Your task to perform on an android device: toggle location history Image 0: 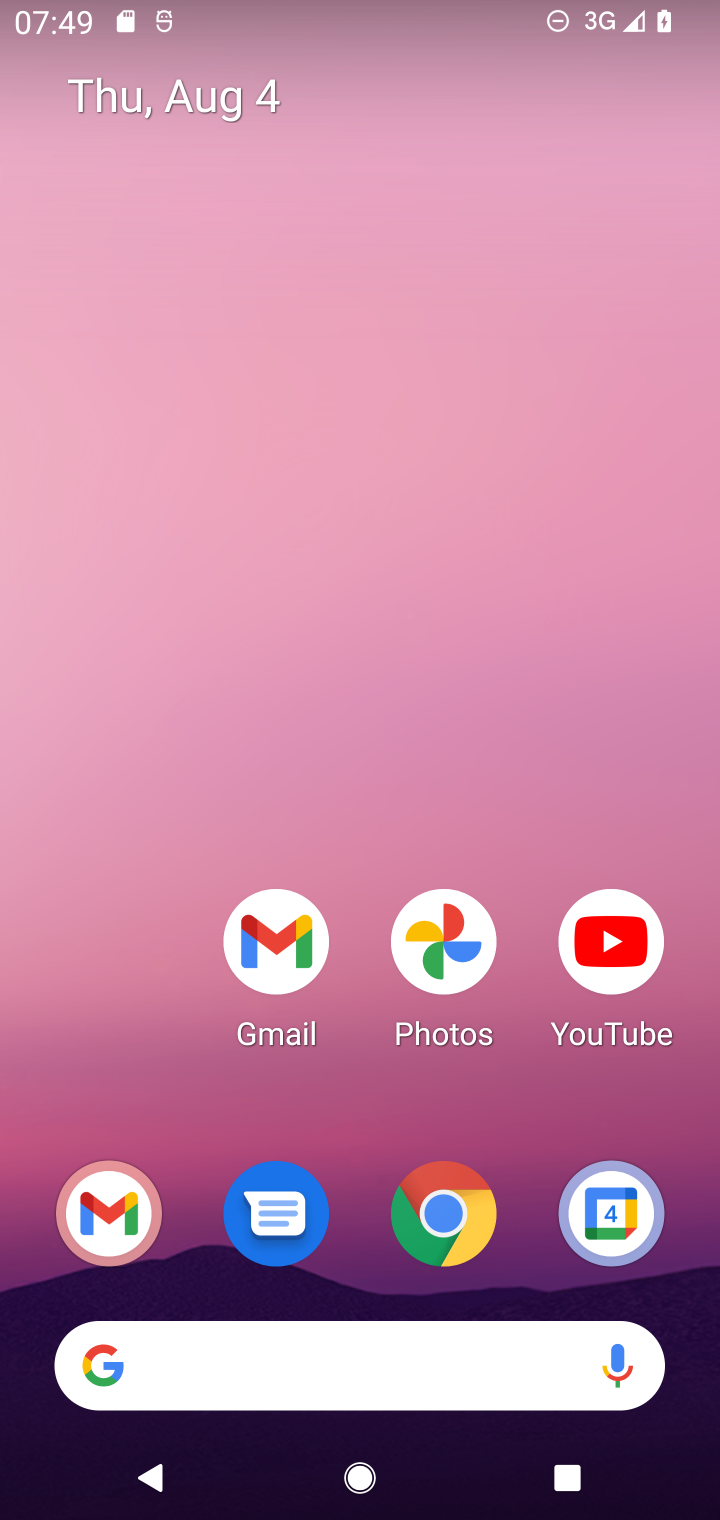
Step 0: press home button
Your task to perform on an android device: toggle location history Image 1: 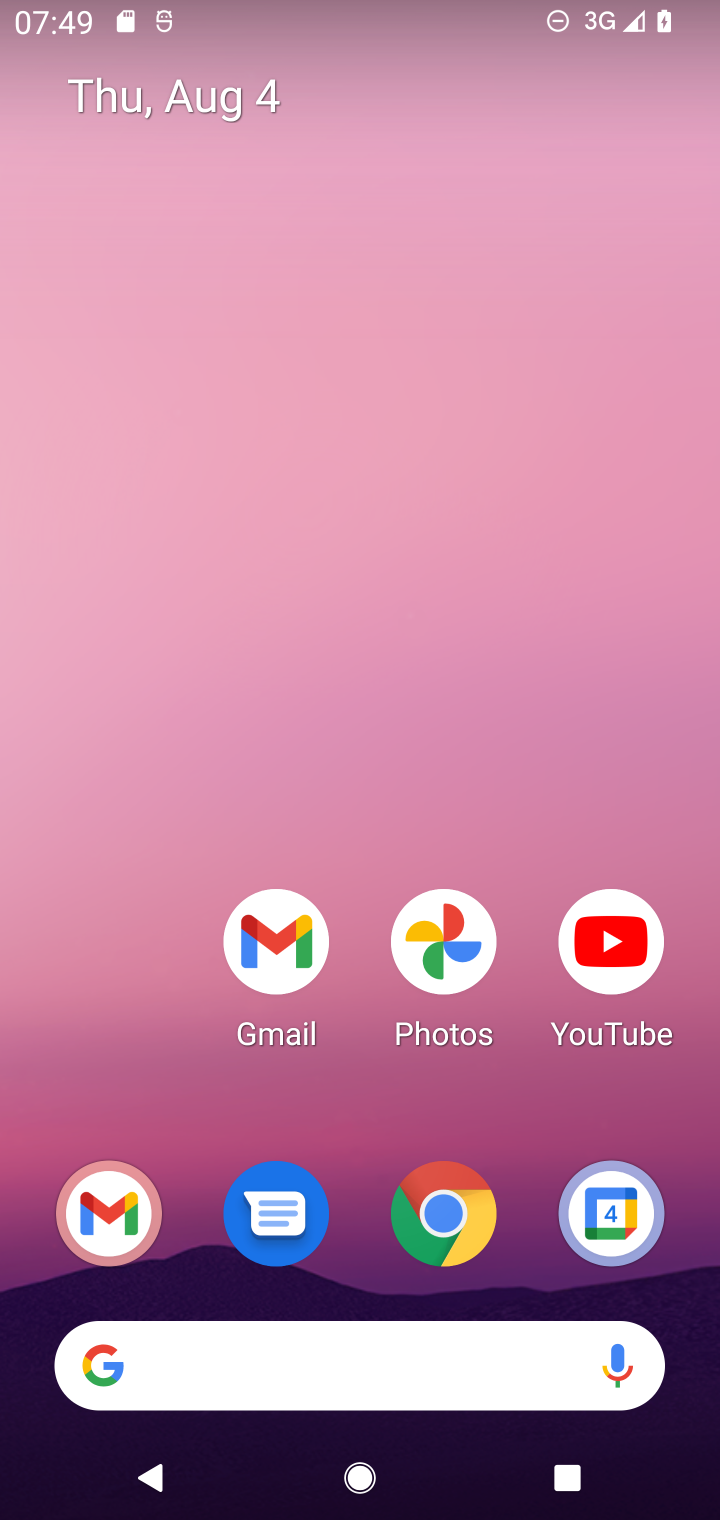
Step 1: drag from (160, 1086) to (128, 515)
Your task to perform on an android device: toggle location history Image 2: 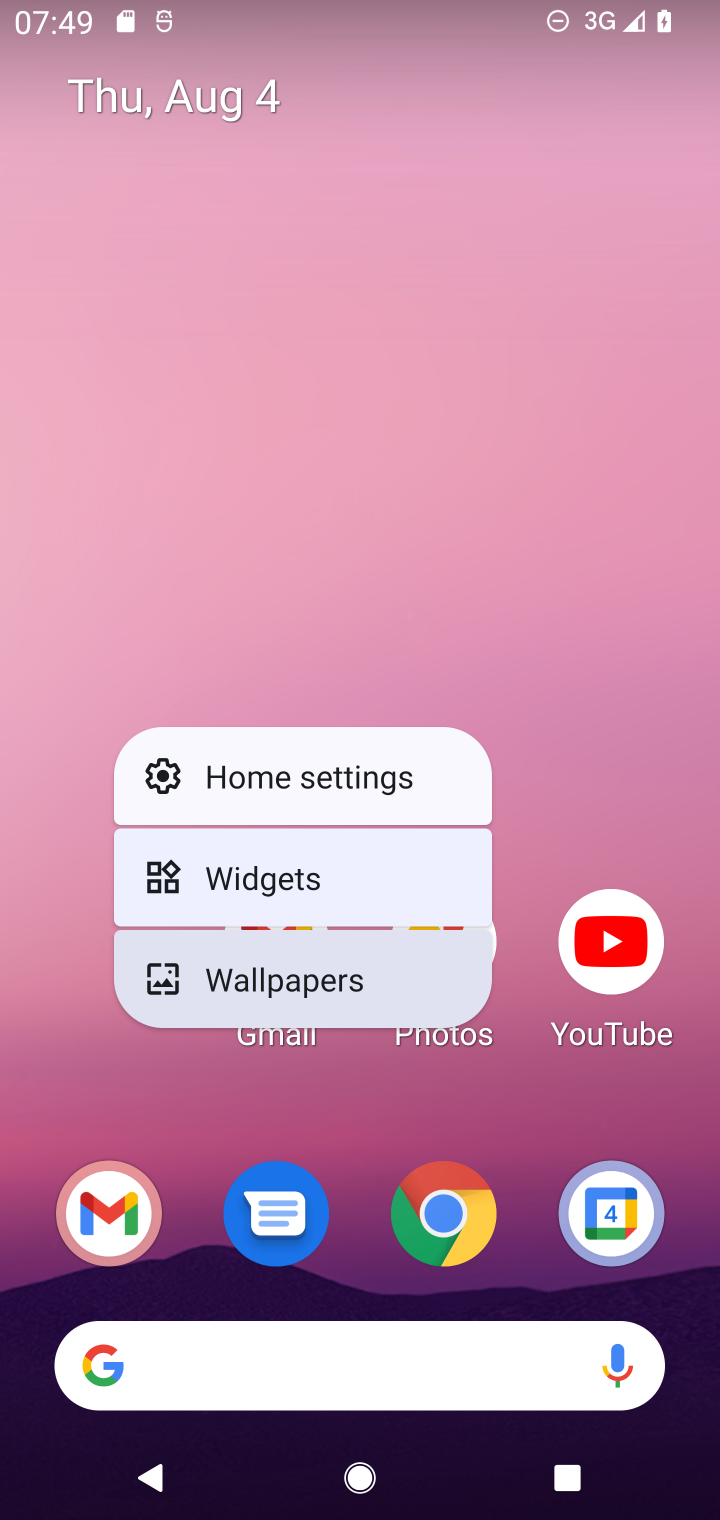
Step 2: click (78, 967)
Your task to perform on an android device: toggle location history Image 3: 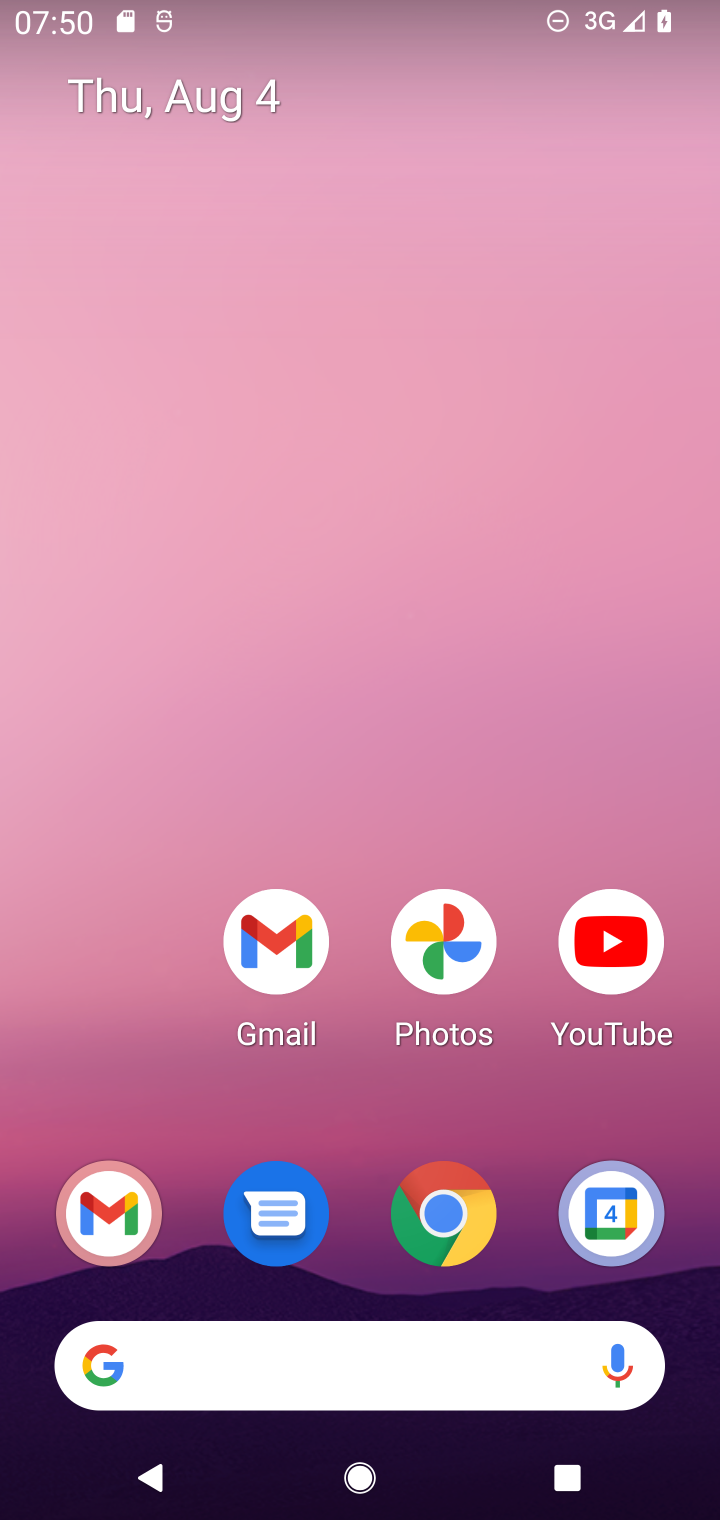
Step 3: drag from (106, 975) to (114, 239)
Your task to perform on an android device: toggle location history Image 4: 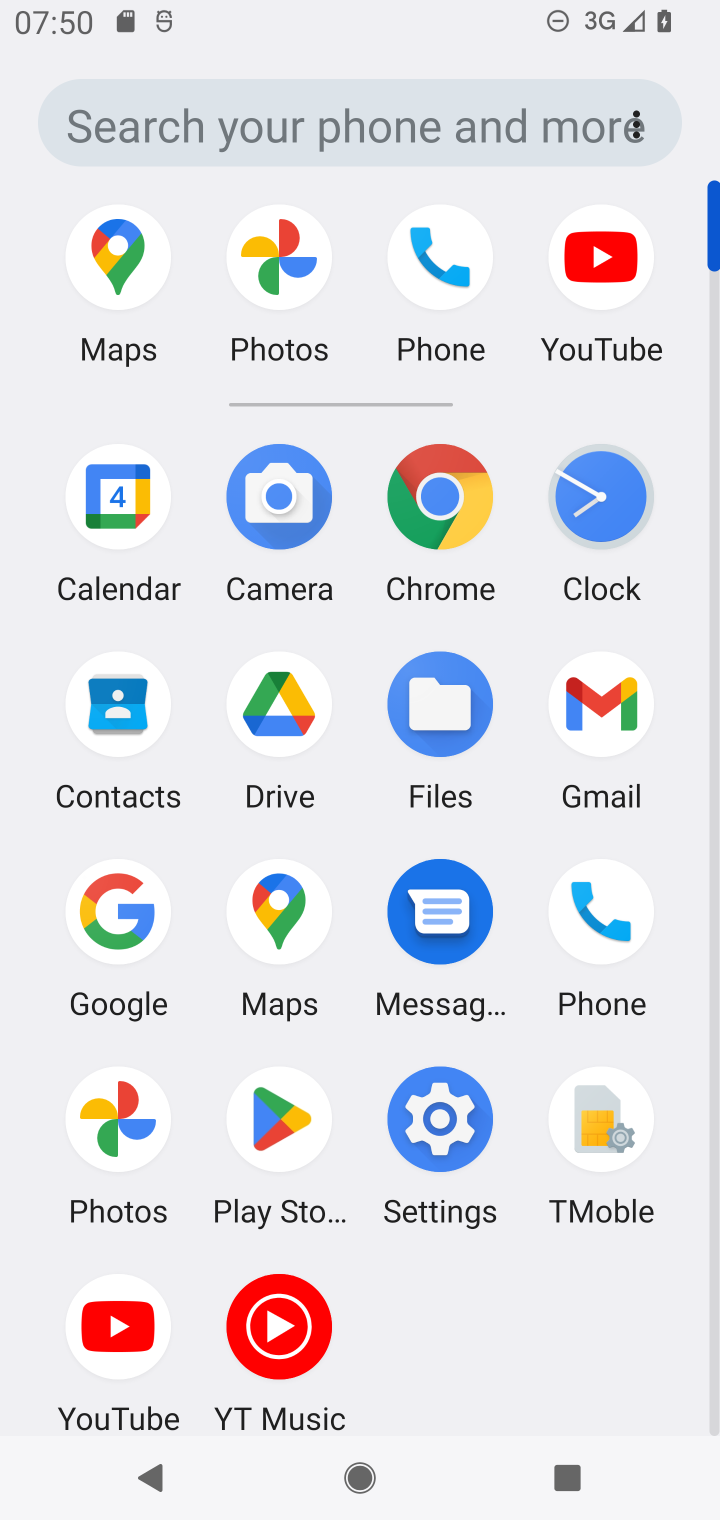
Step 4: click (444, 1120)
Your task to perform on an android device: toggle location history Image 5: 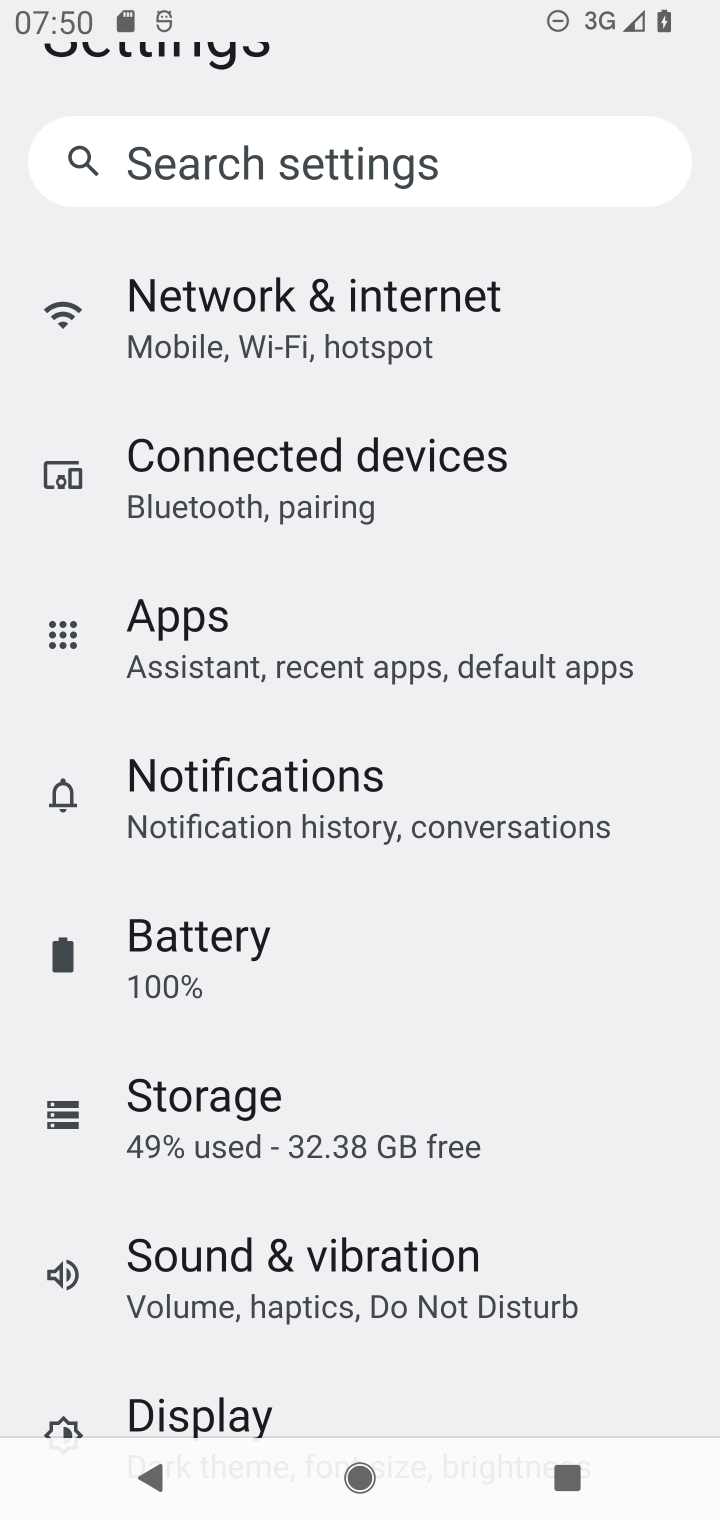
Step 5: drag from (551, 1153) to (585, 954)
Your task to perform on an android device: toggle location history Image 6: 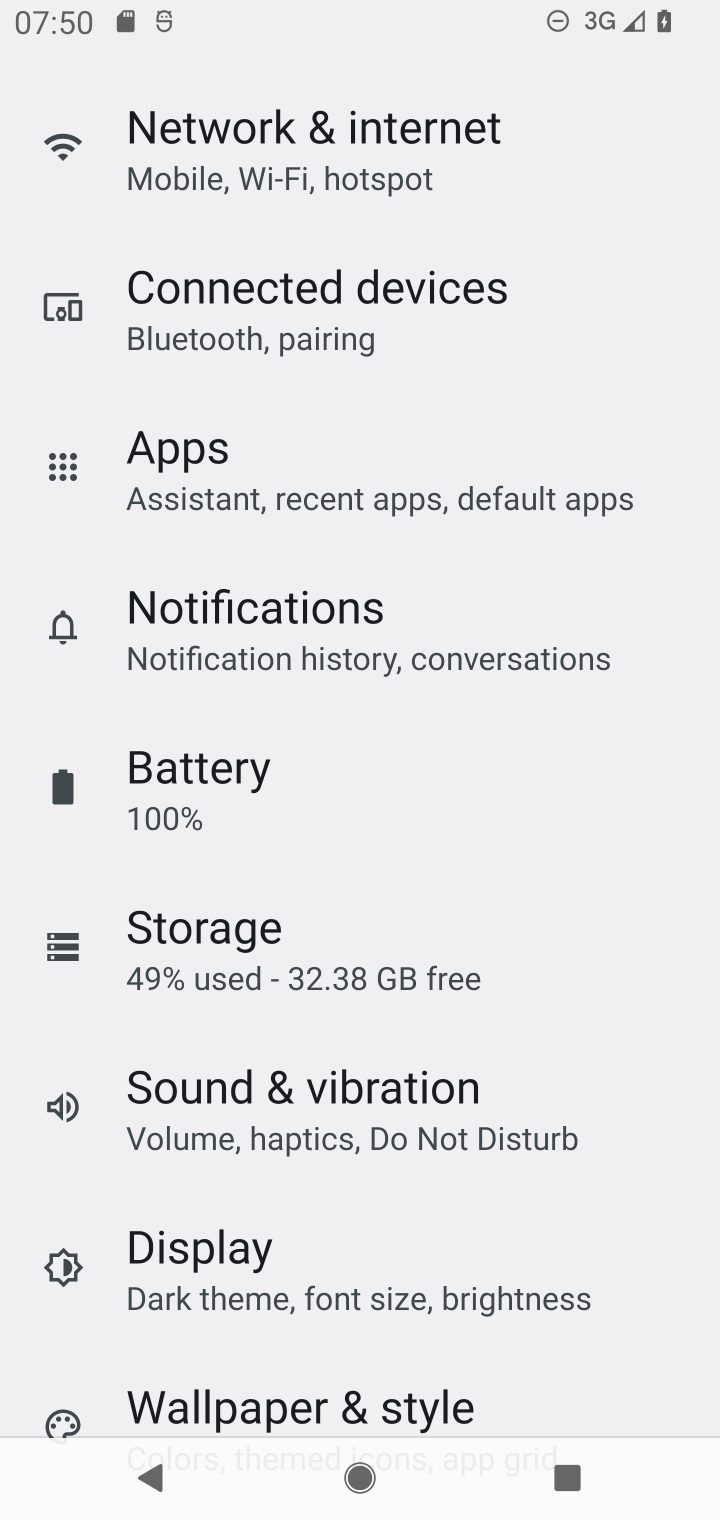
Step 6: drag from (630, 1307) to (645, 1064)
Your task to perform on an android device: toggle location history Image 7: 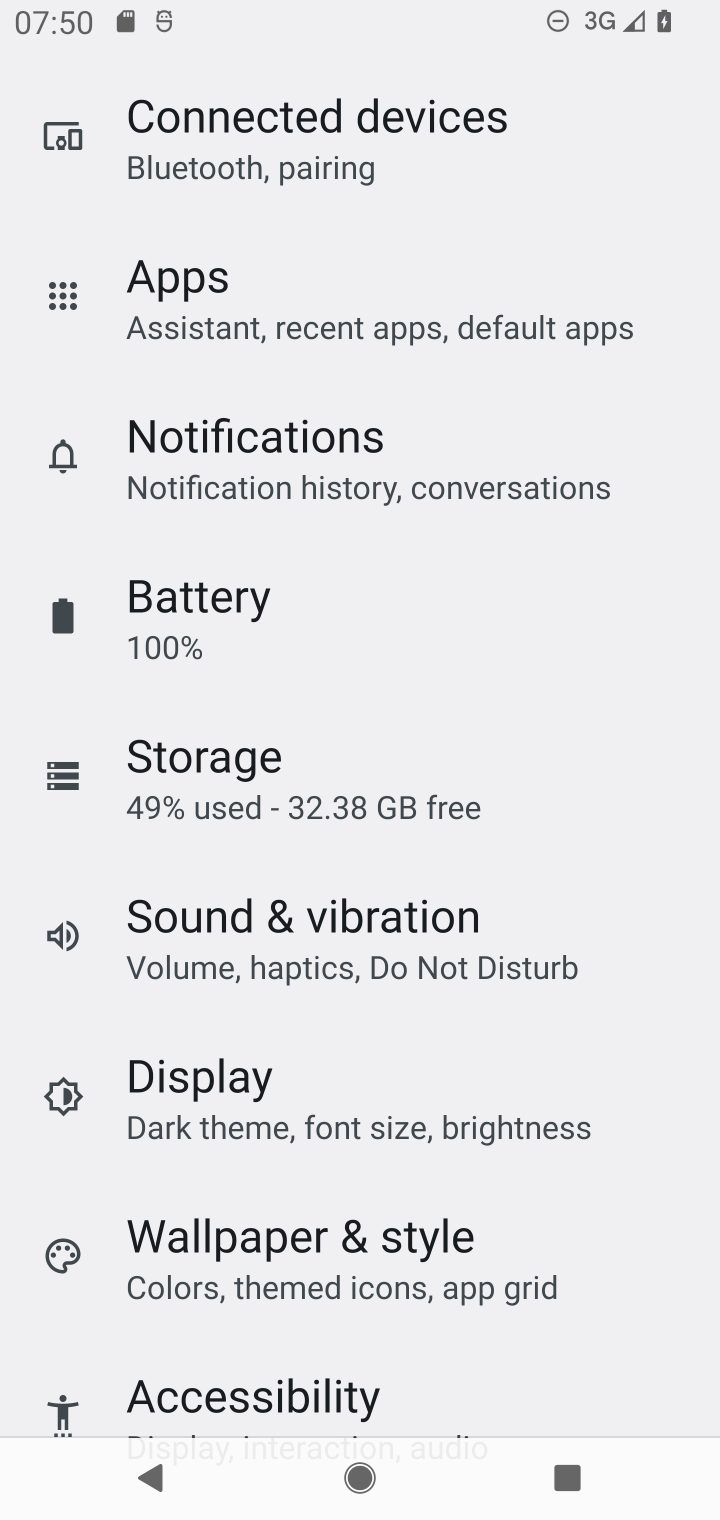
Step 7: drag from (613, 1216) to (644, 1018)
Your task to perform on an android device: toggle location history Image 8: 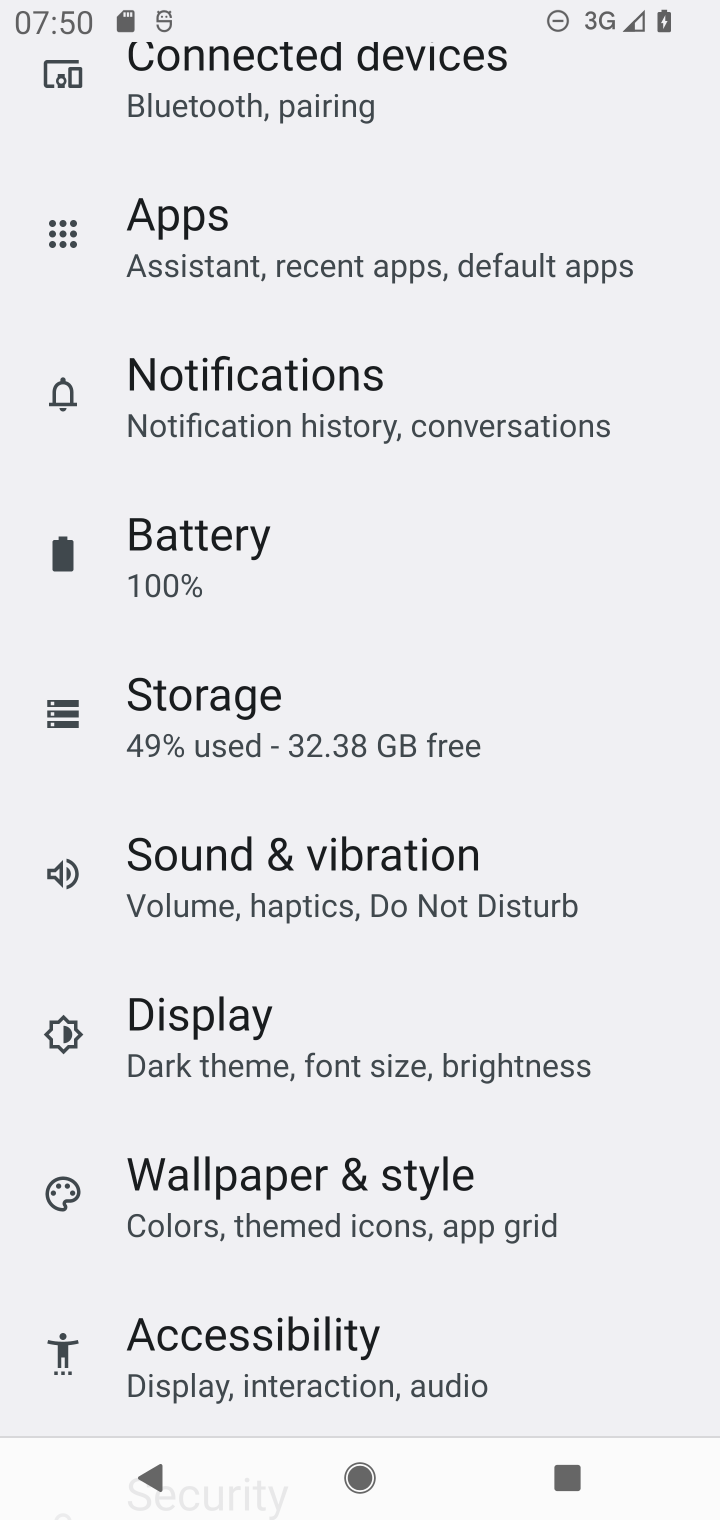
Step 8: drag from (604, 1255) to (616, 965)
Your task to perform on an android device: toggle location history Image 9: 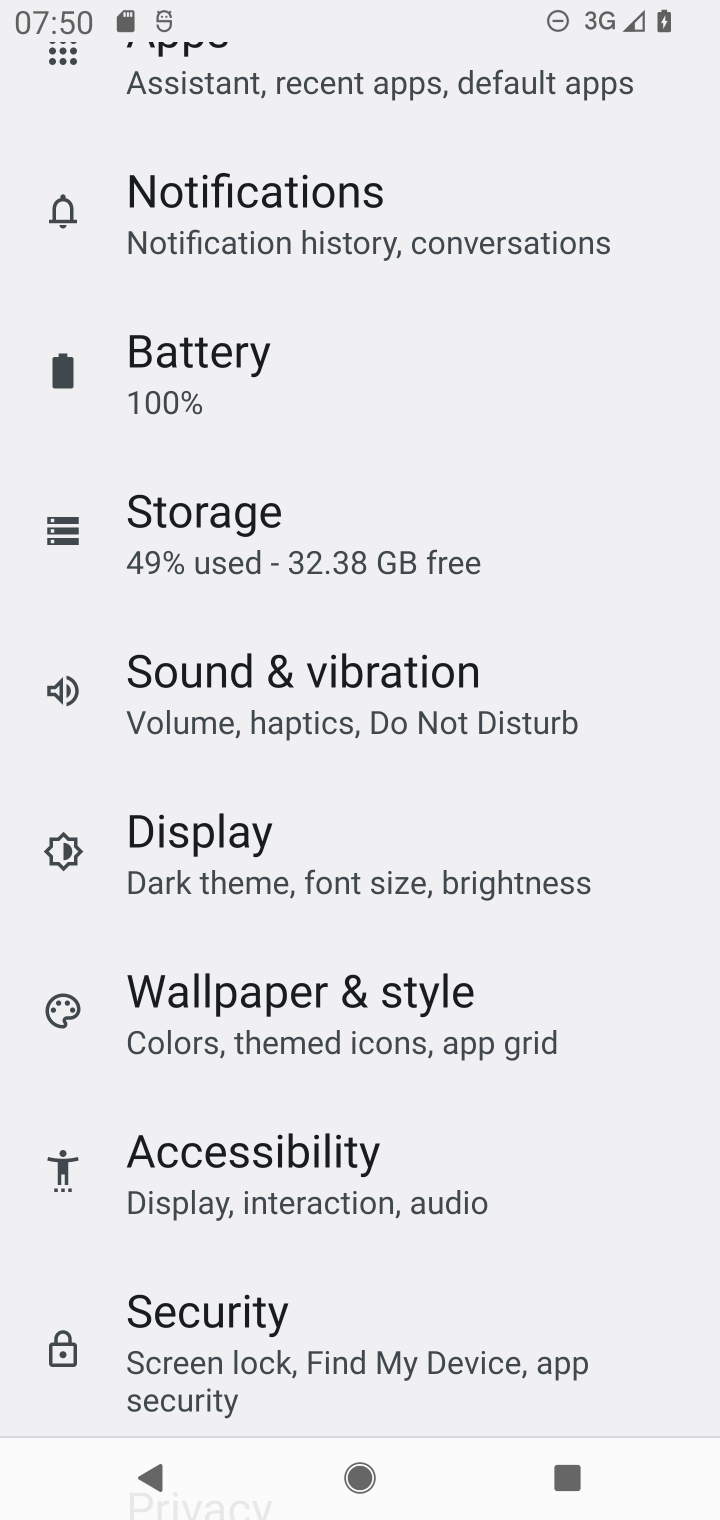
Step 9: drag from (607, 1258) to (609, 927)
Your task to perform on an android device: toggle location history Image 10: 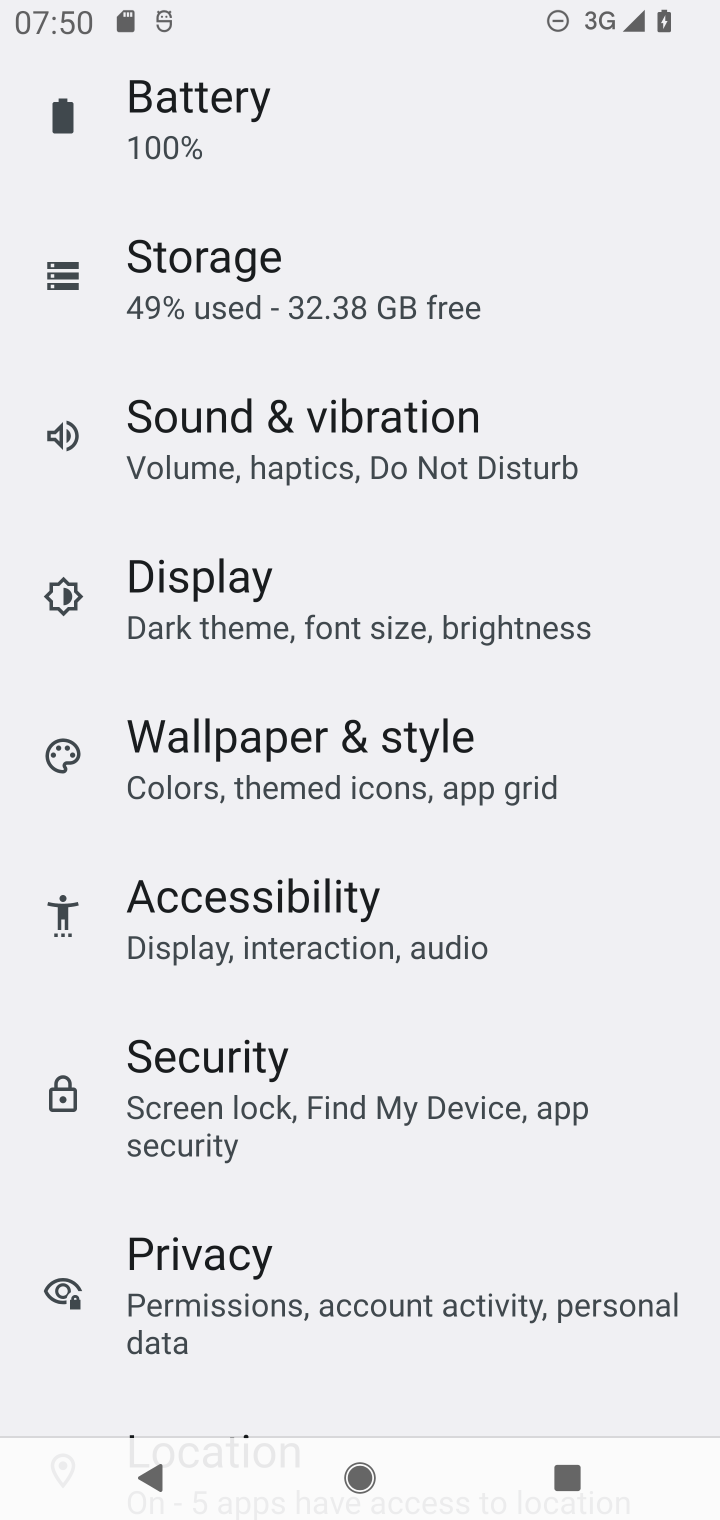
Step 10: drag from (589, 1330) to (597, 1012)
Your task to perform on an android device: toggle location history Image 11: 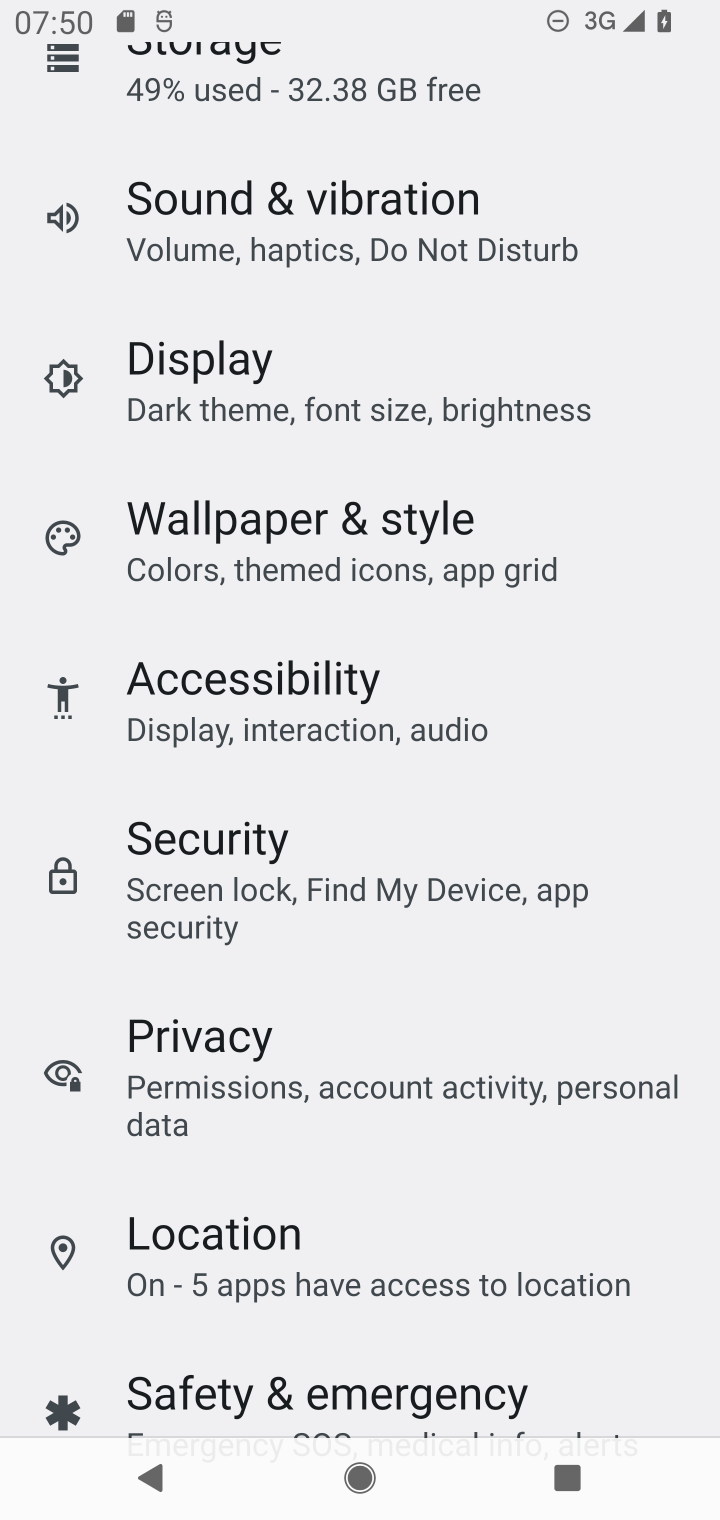
Step 11: drag from (592, 1373) to (585, 982)
Your task to perform on an android device: toggle location history Image 12: 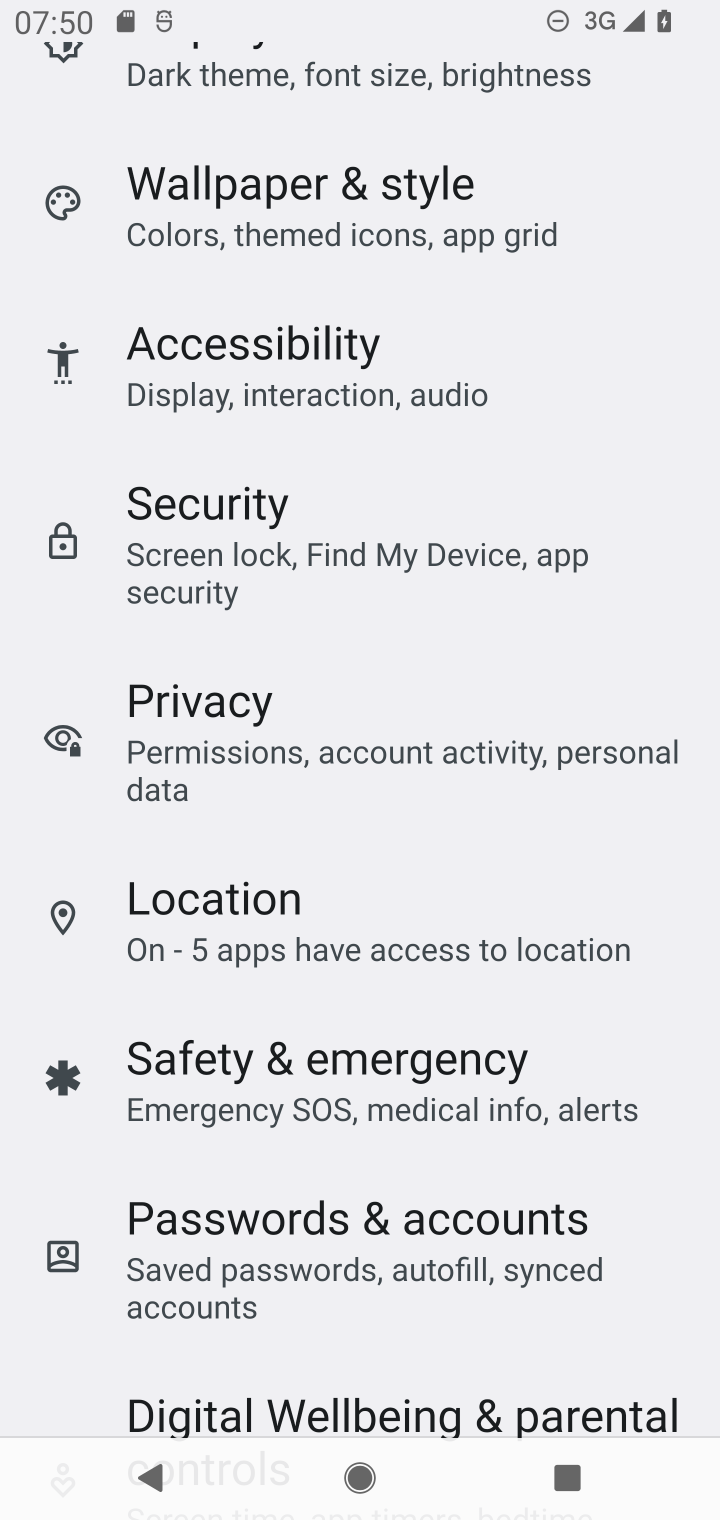
Step 12: click (480, 922)
Your task to perform on an android device: toggle location history Image 13: 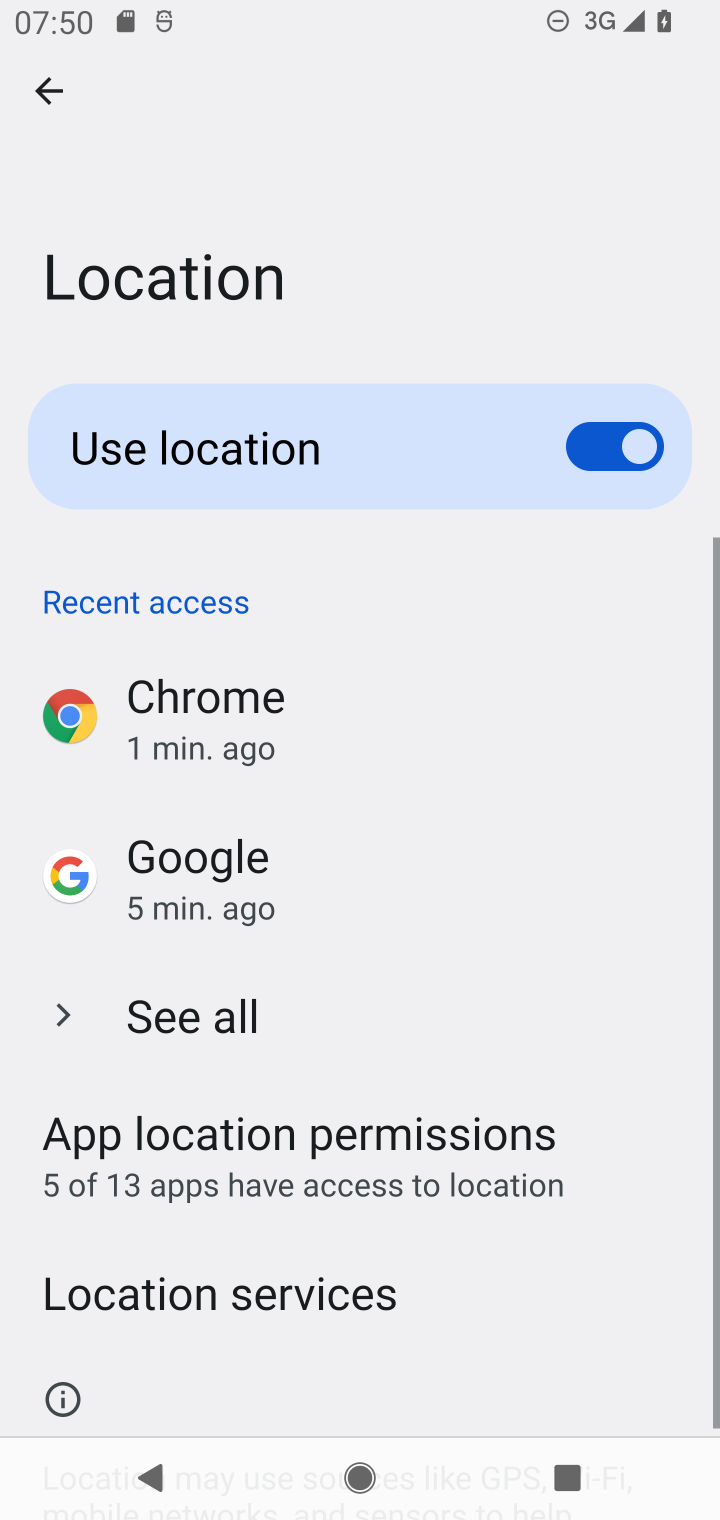
Step 13: drag from (478, 1160) to (478, 841)
Your task to perform on an android device: toggle location history Image 14: 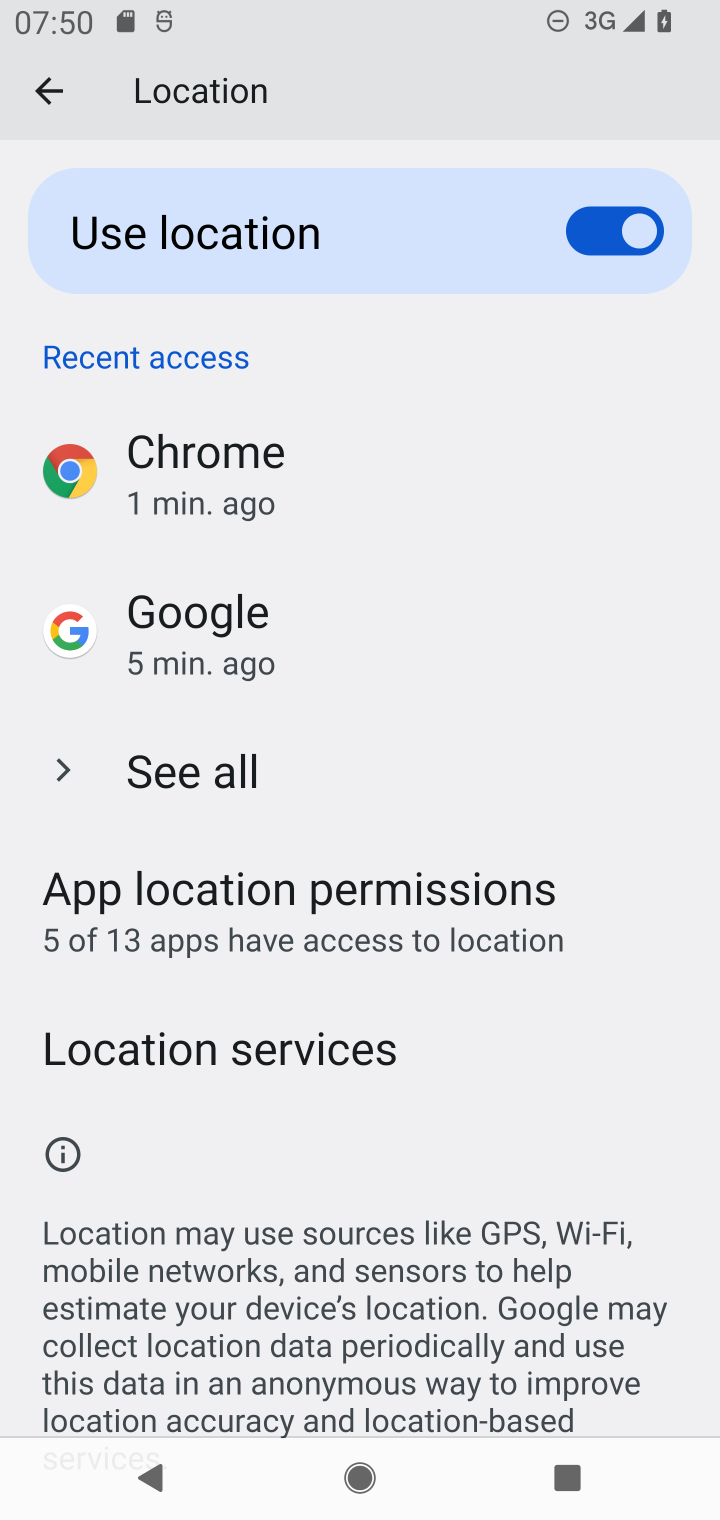
Step 14: click (407, 1047)
Your task to perform on an android device: toggle location history Image 15: 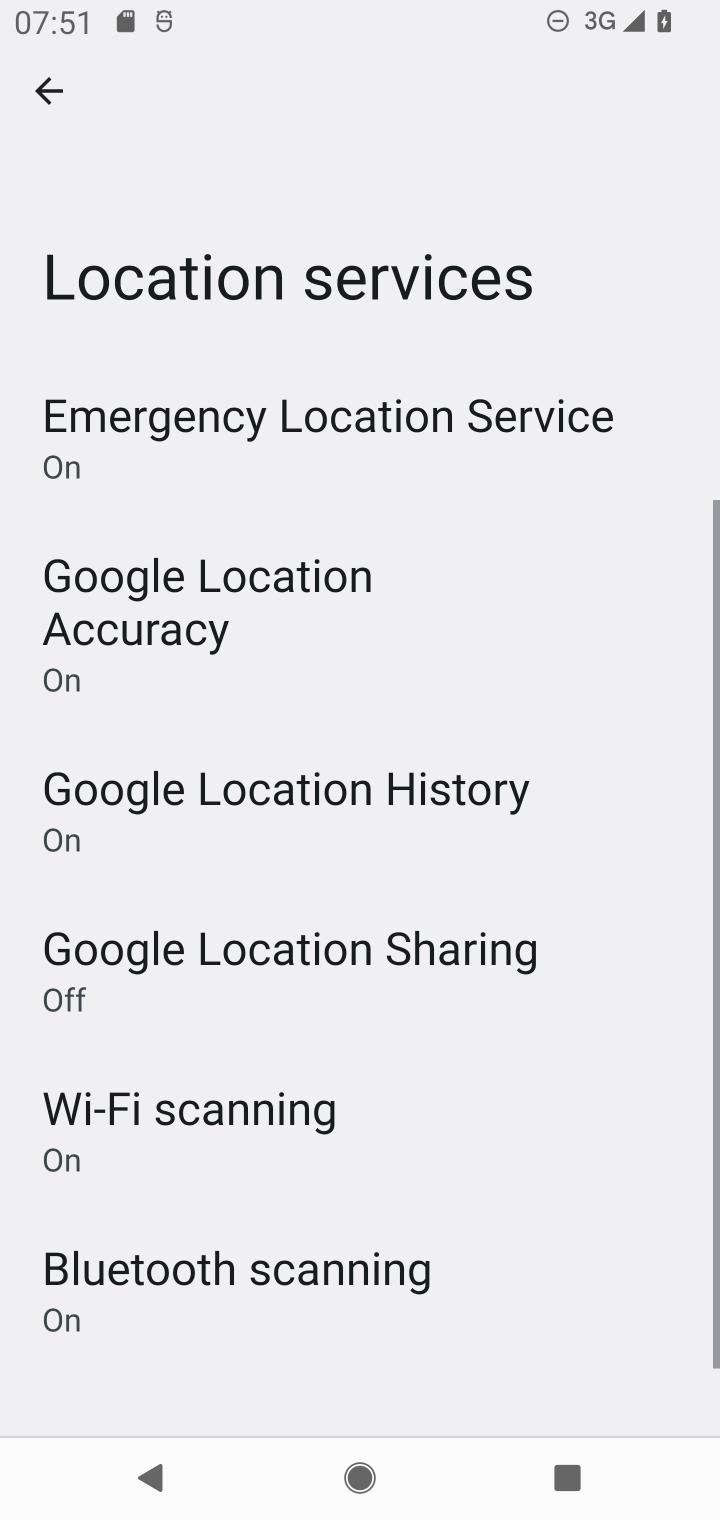
Step 15: drag from (528, 1130) to (546, 865)
Your task to perform on an android device: toggle location history Image 16: 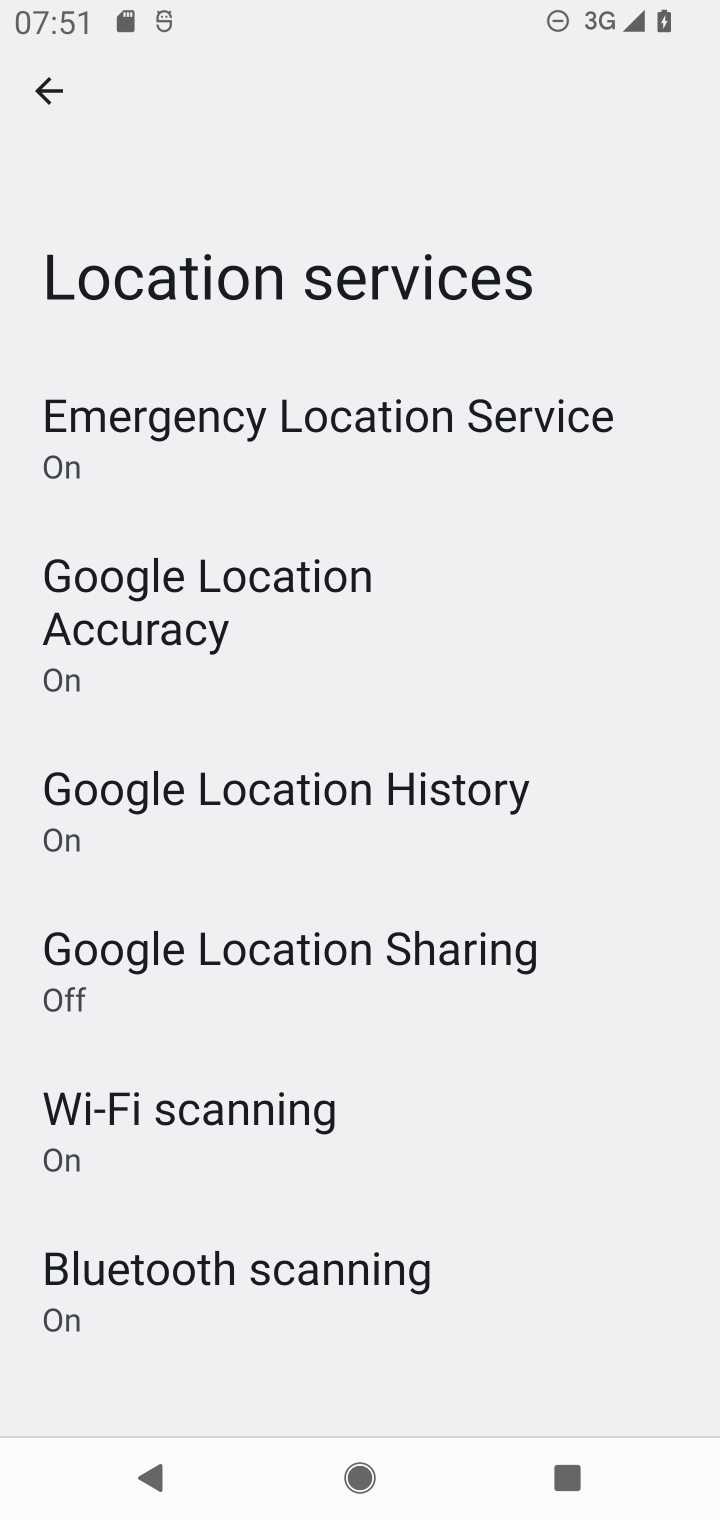
Step 16: click (384, 780)
Your task to perform on an android device: toggle location history Image 17: 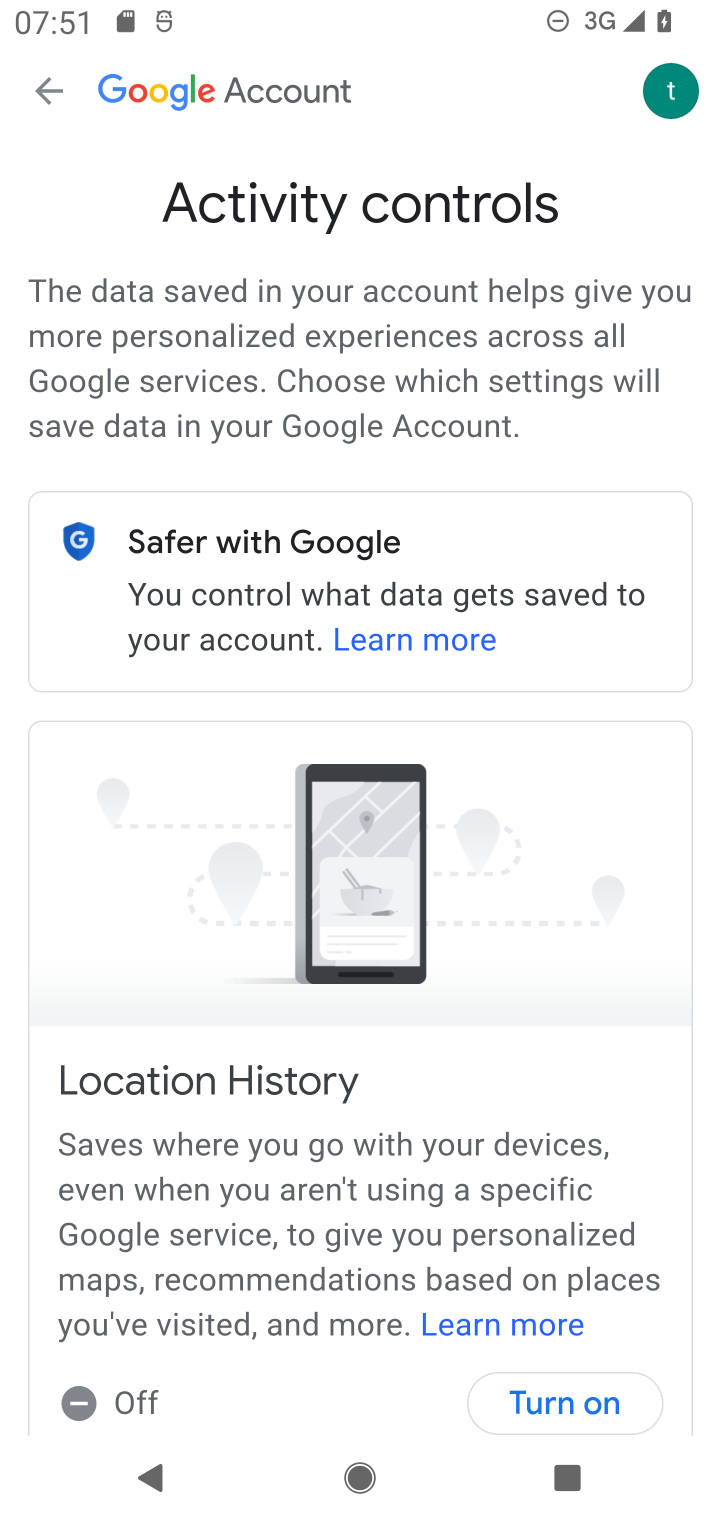
Step 17: click (571, 1382)
Your task to perform on an android device: toggle location history Image 18: 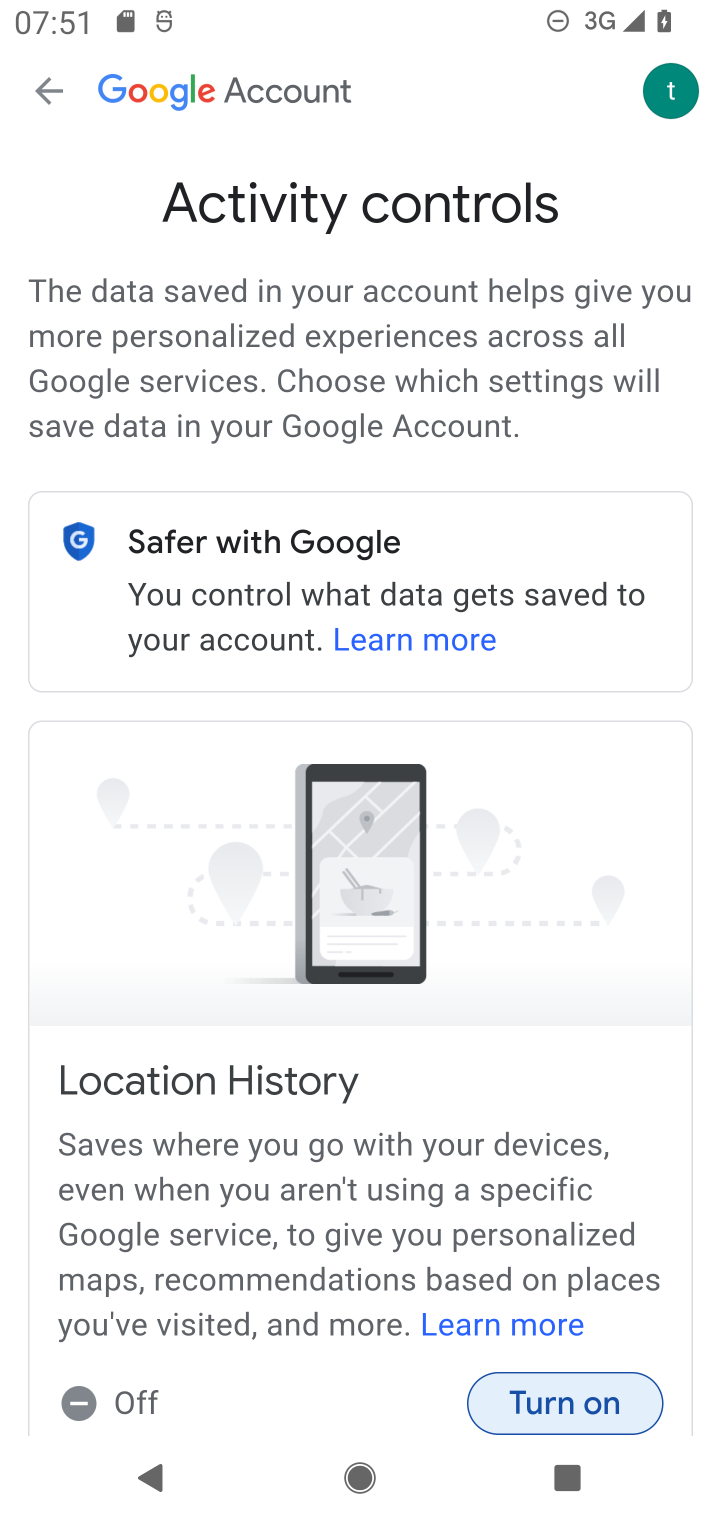
Step 18: click (571, 1395)
Your task to perform on an android device: toggle location history Image 19: 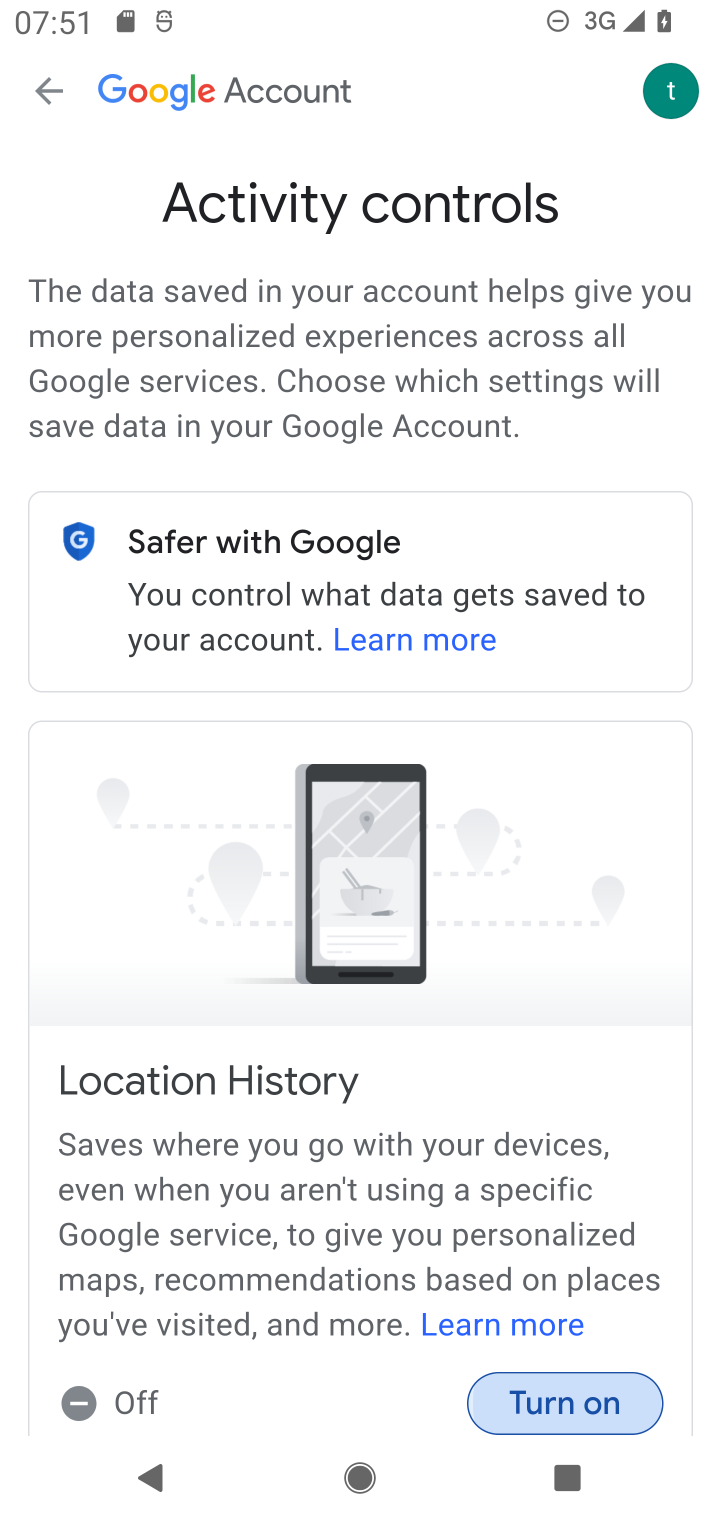
Step 19: drag from (519, 891) to (519, 762)
Your task to perform on an android device: toggle location history Image 20: 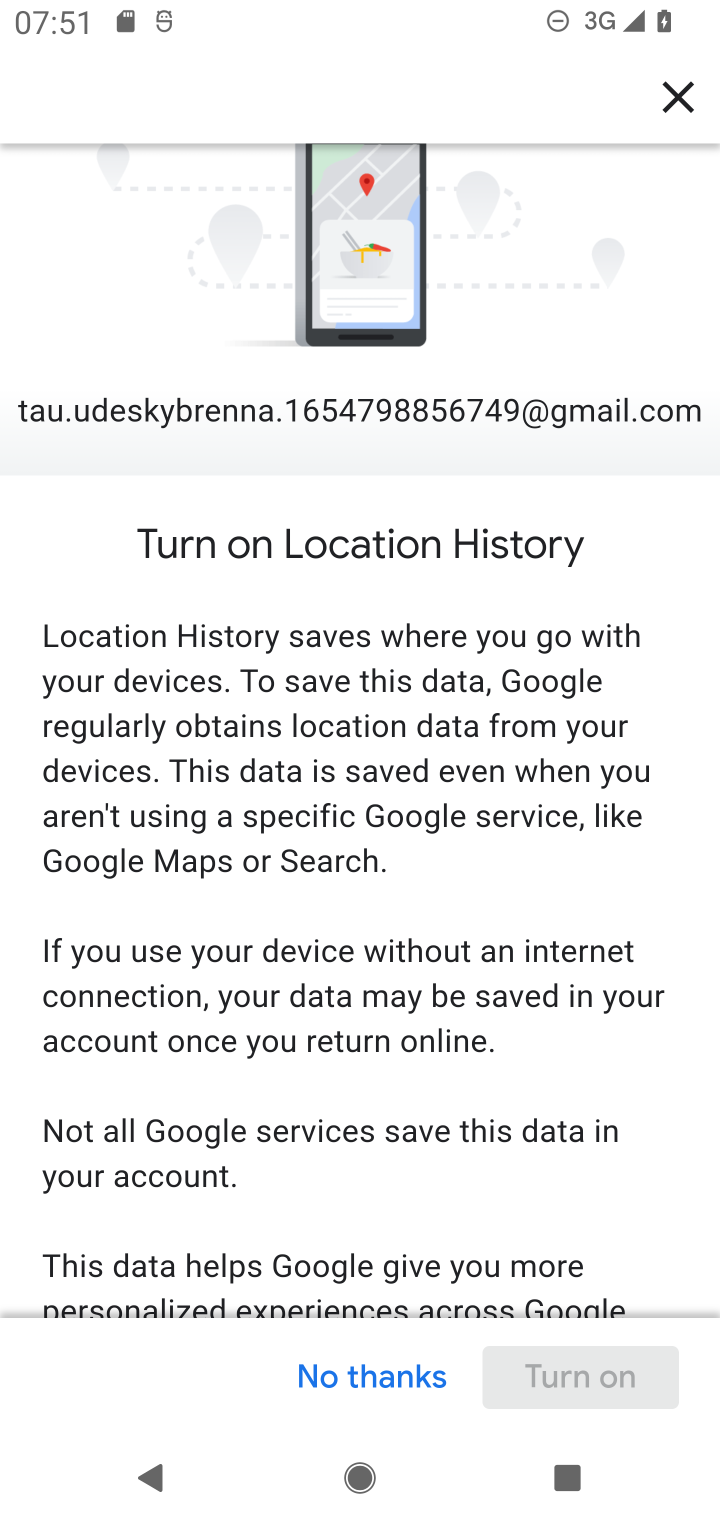
Step 20: drag from (490, 1197) to (486, 791)
Your task to perform on an android device: toggle location history Image 21: 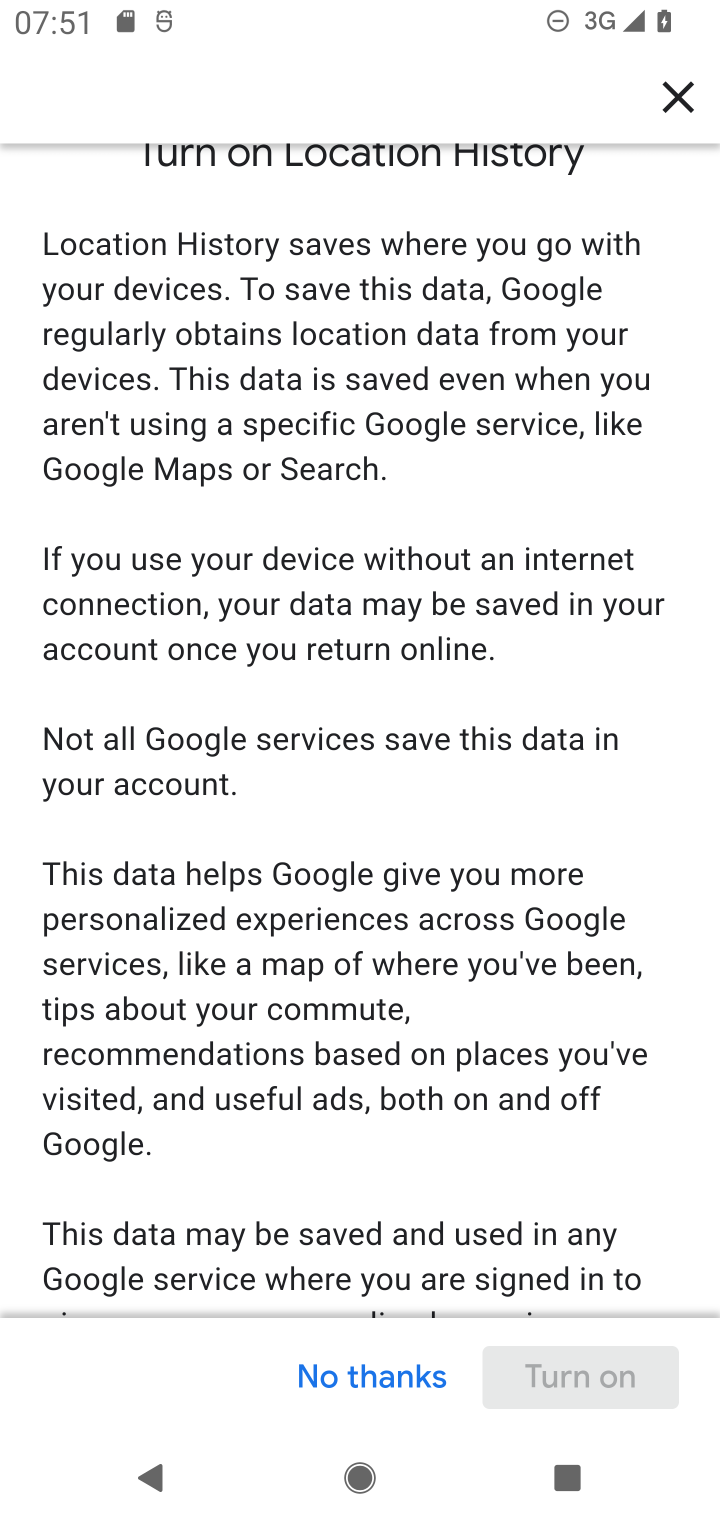
Step 21: drag from (432, 1185) to (427, 682)
Your task to perform on an android device: toggle location history Image 22: 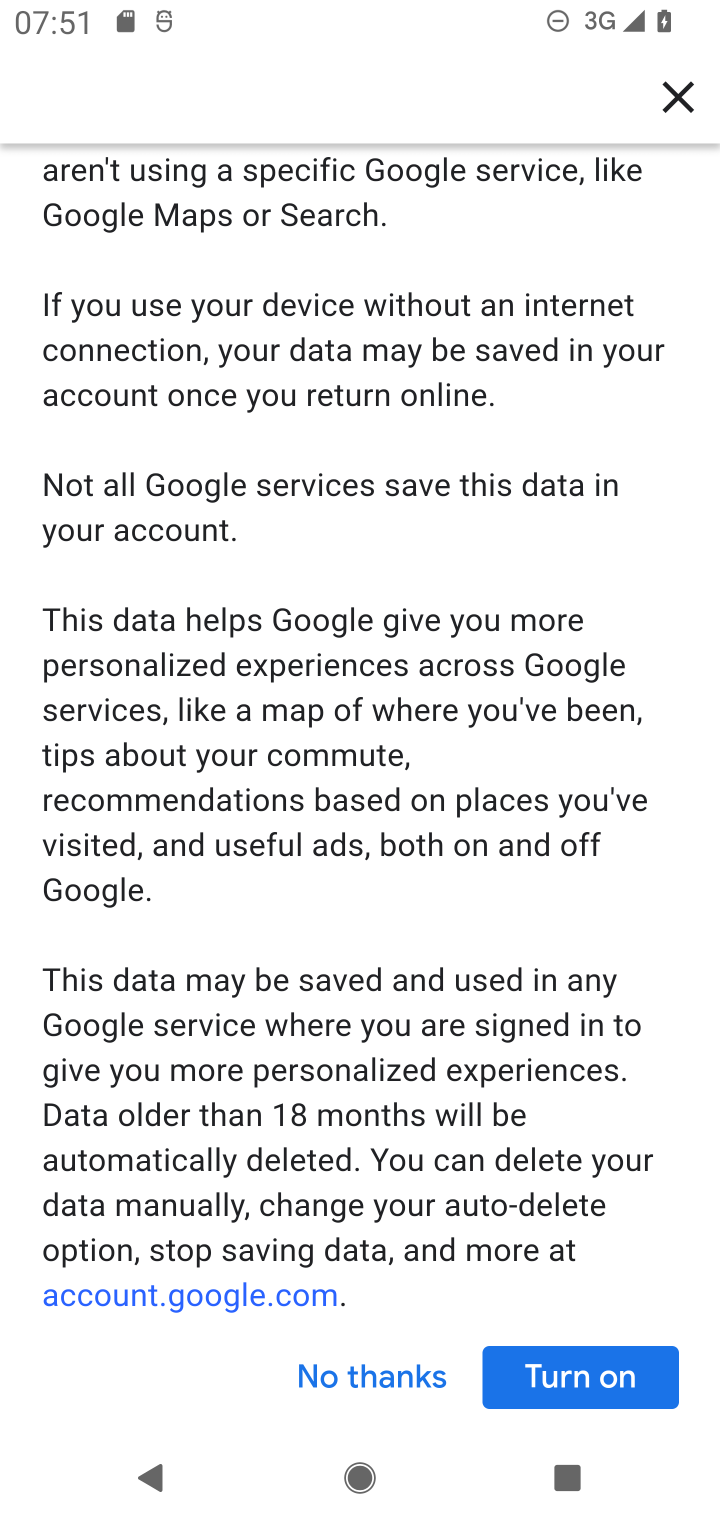
Step 22: click (565, 1368)
Your task to perform on an android device: toggle location history Image 23: 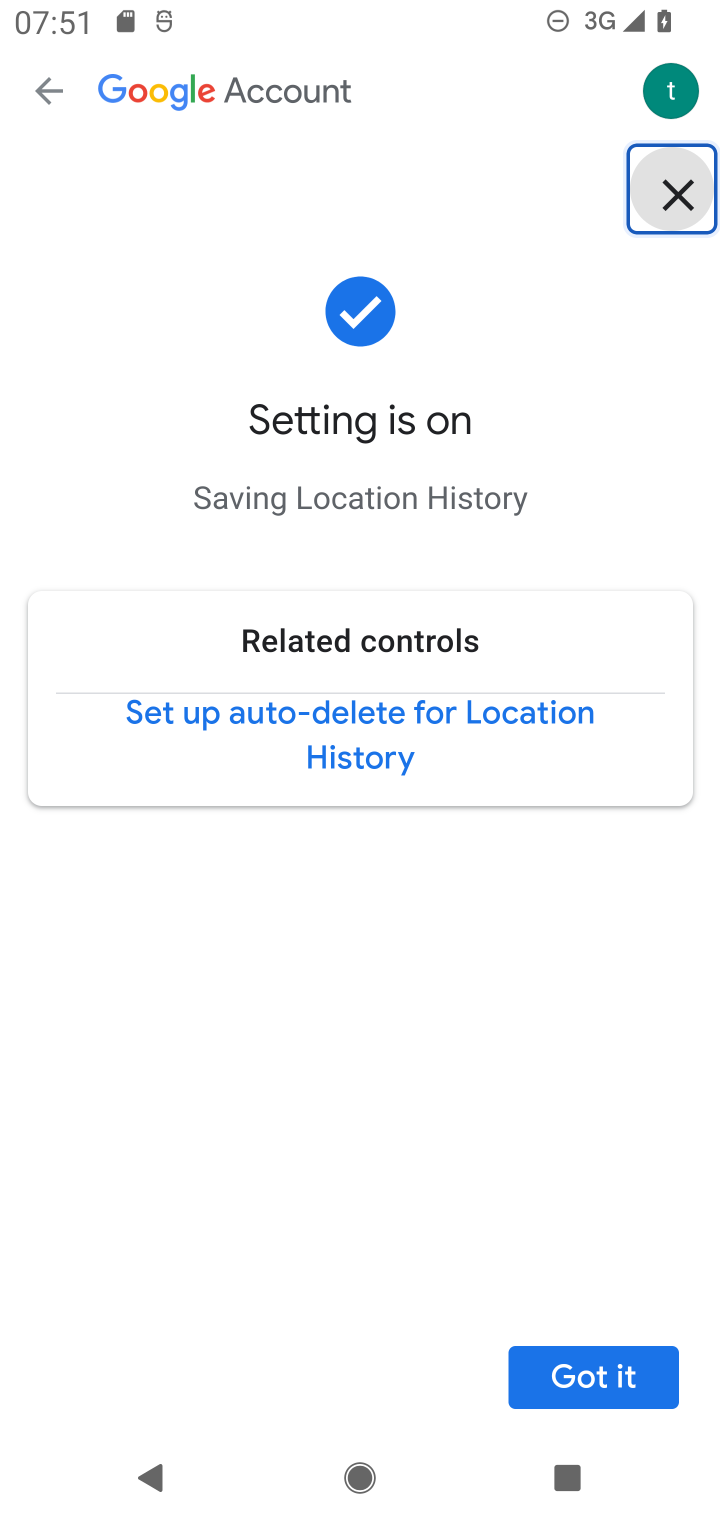
Step 23: task complete